Your task to perform on an android device: turn off sleep mode Image 0: 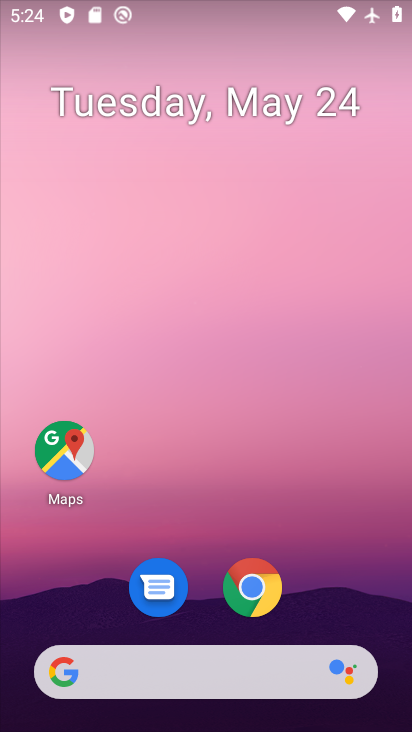
Step 0: drag from (333, 545) to (161, 89)
Your task to perform on an android device: turn off sleep mode Image 1: 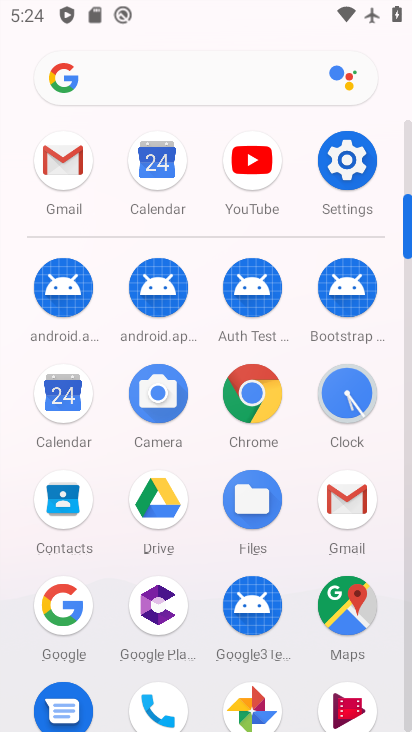
Step 1: click (326, 168)
Your task to perform on an android device: turn off sleep mode Image 2: 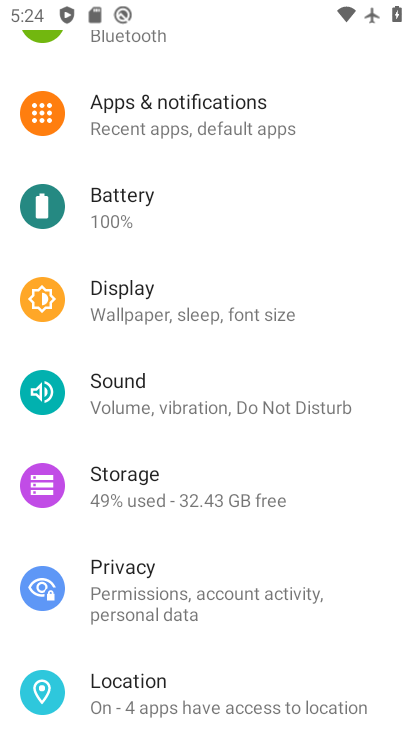
Step 2: click (160, 300)
Your task to perform on an android device: turn off sleep mode Image 3: 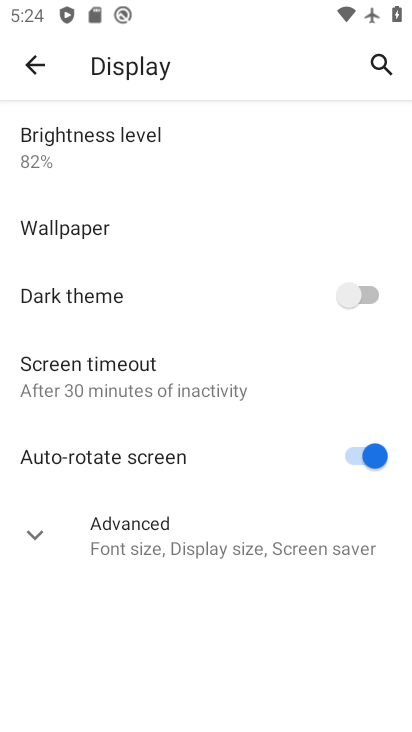
Step 3: task complete